Your task to perform on an android device: turn on location history Image 0: 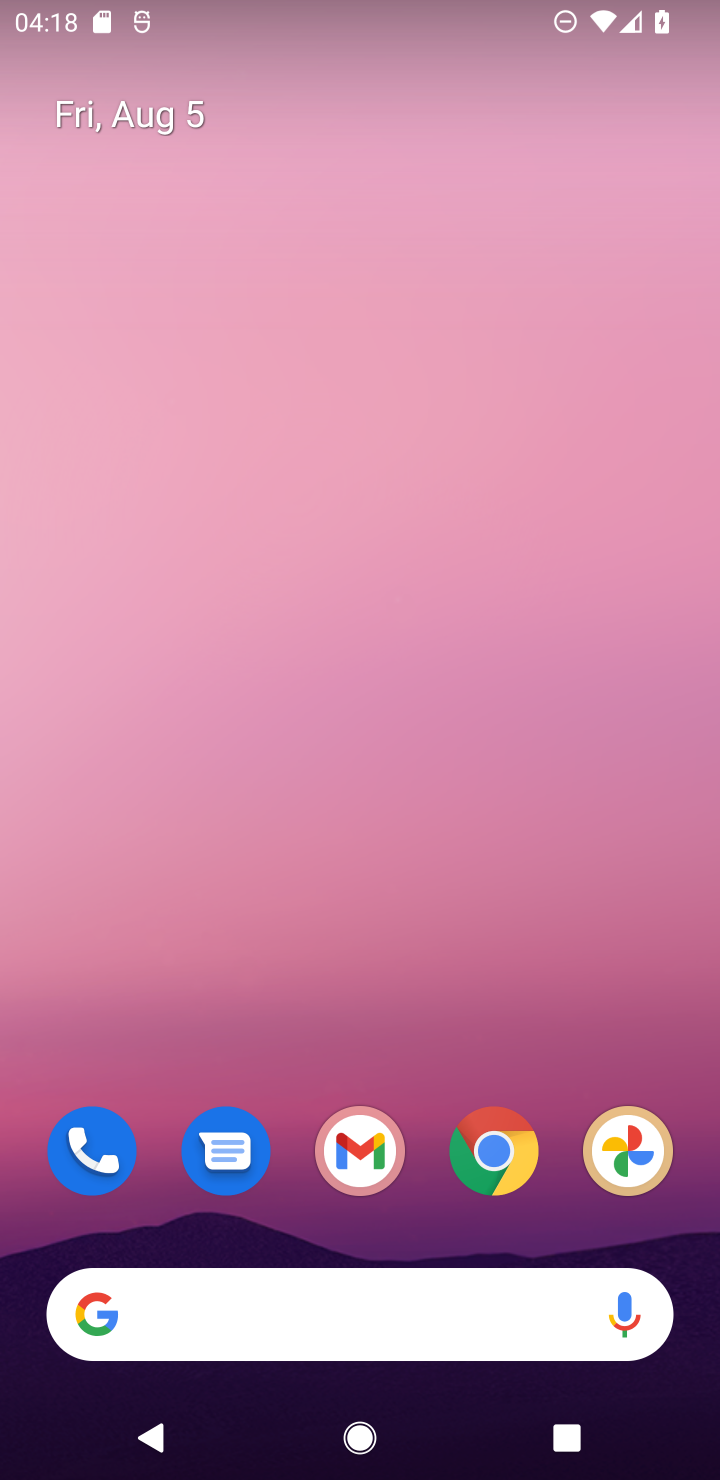
Step 0: drag from (529, 1004) to (529, 472)
Your task to perform on an android device: turn on location history Image 1: 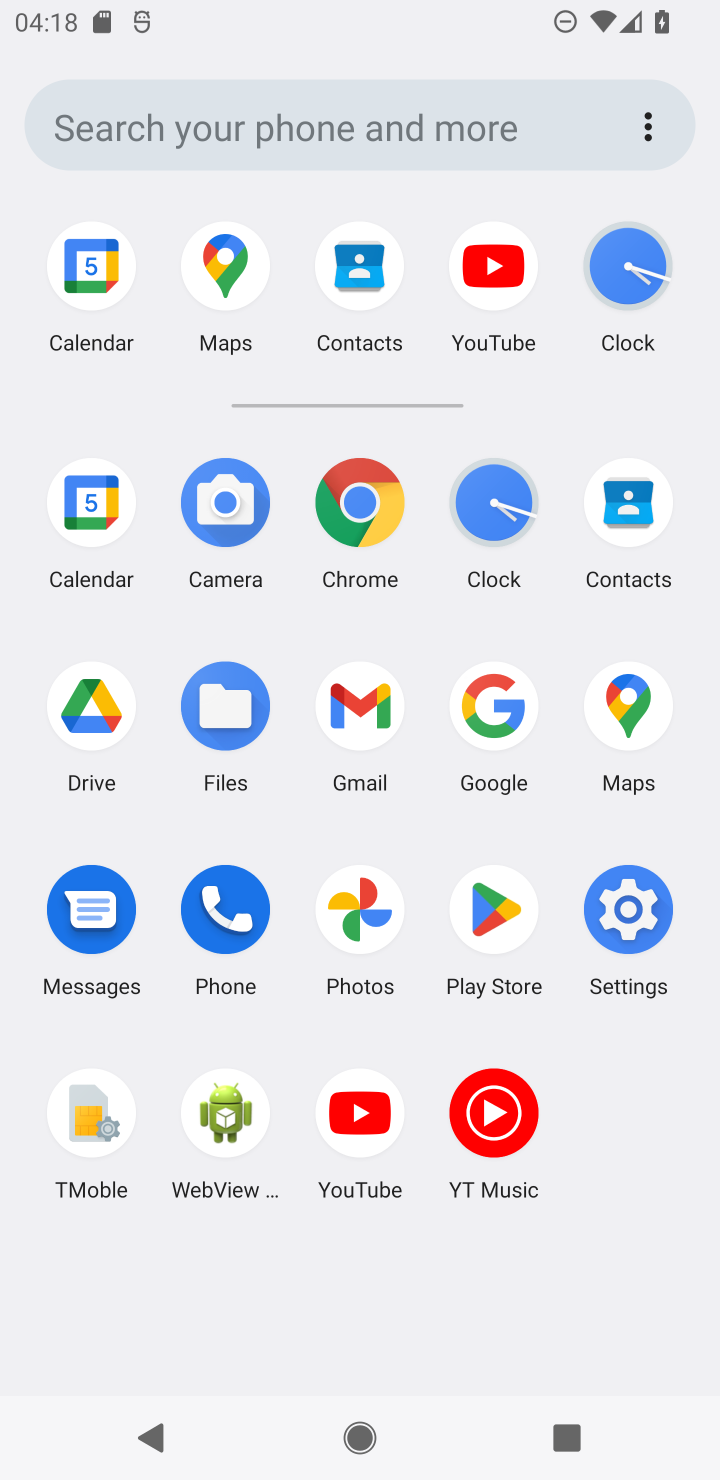
Step 1: click (624, 910)
Your task to perform on an android device: turn on location history Image 2: 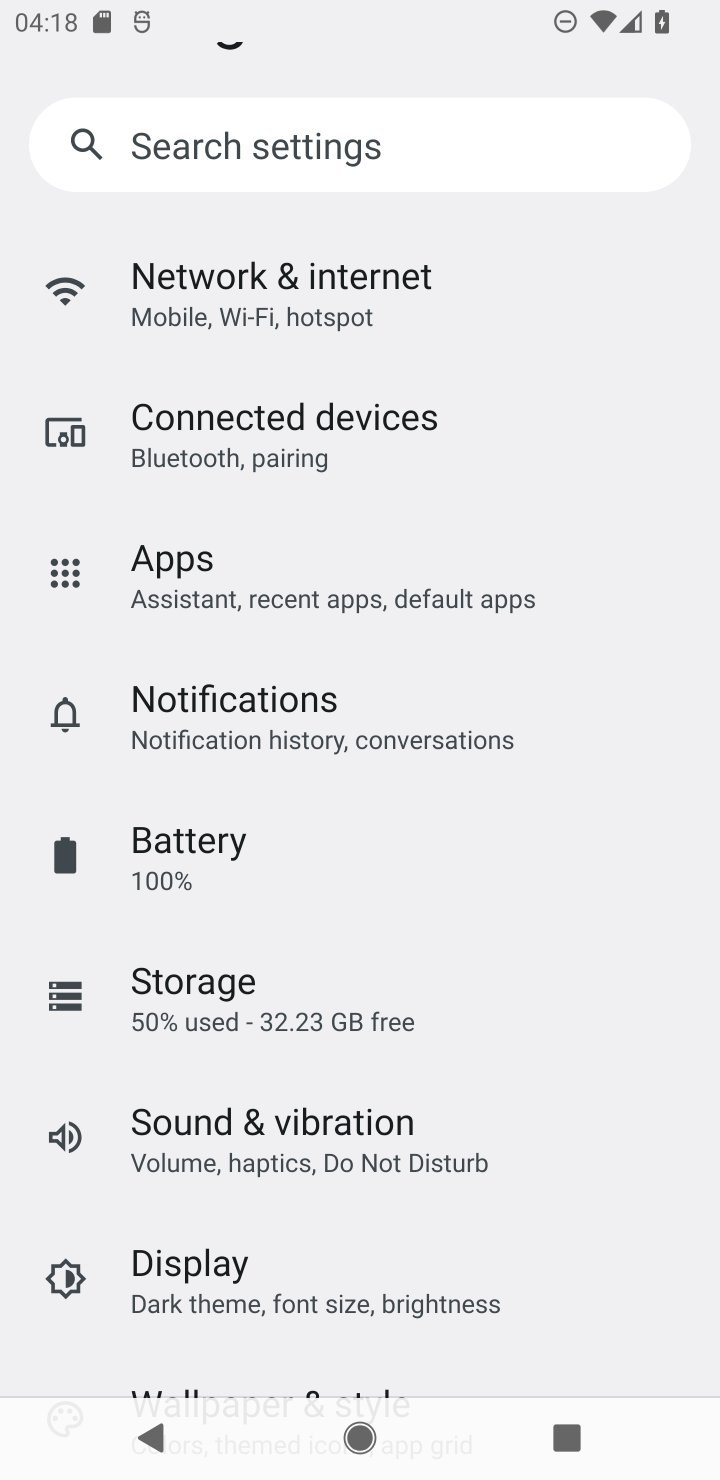
Step 2: drag from (477, 1185) to (444, 338)
Your task to perform on an android device: turn on location history Image 3: 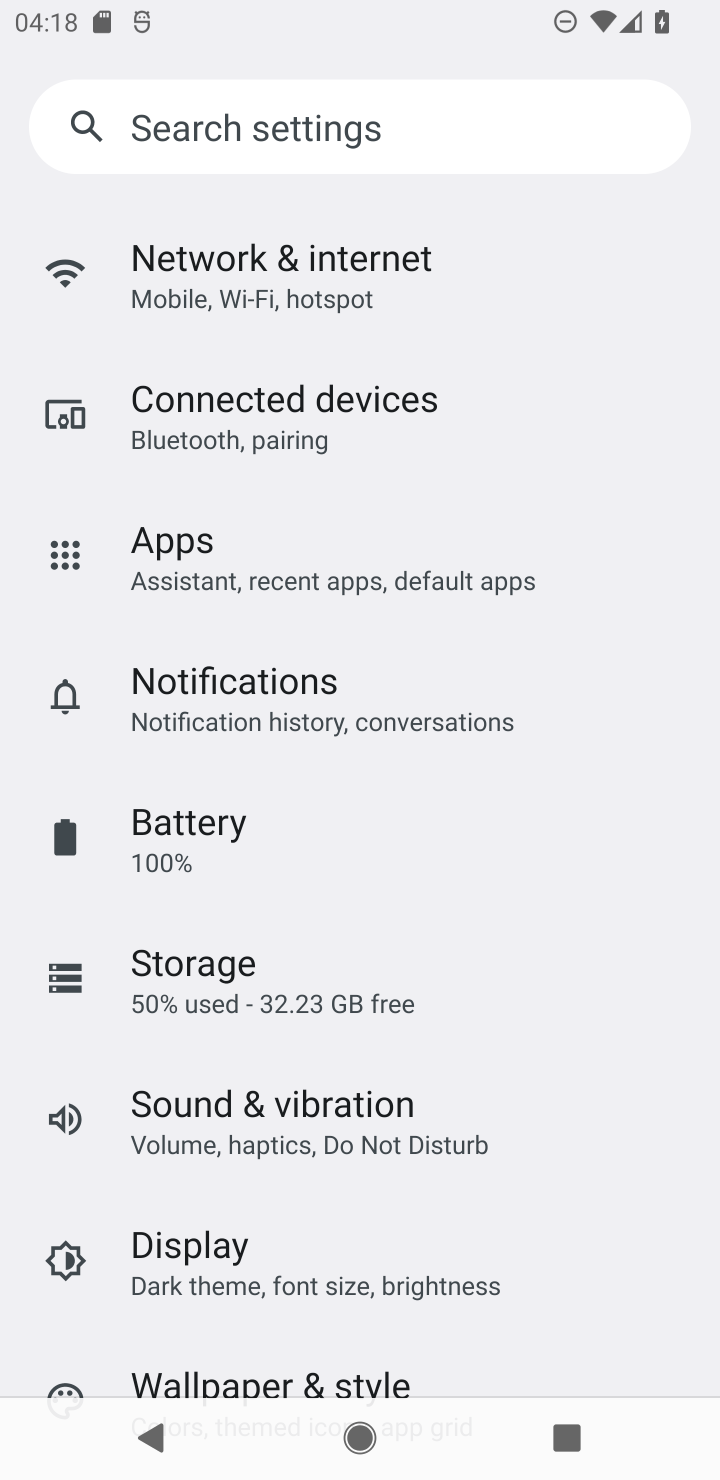
Step 3: drag from (374, 1064) to (310, 619)
Your task to perform on an android device: turn on location history Image 4: 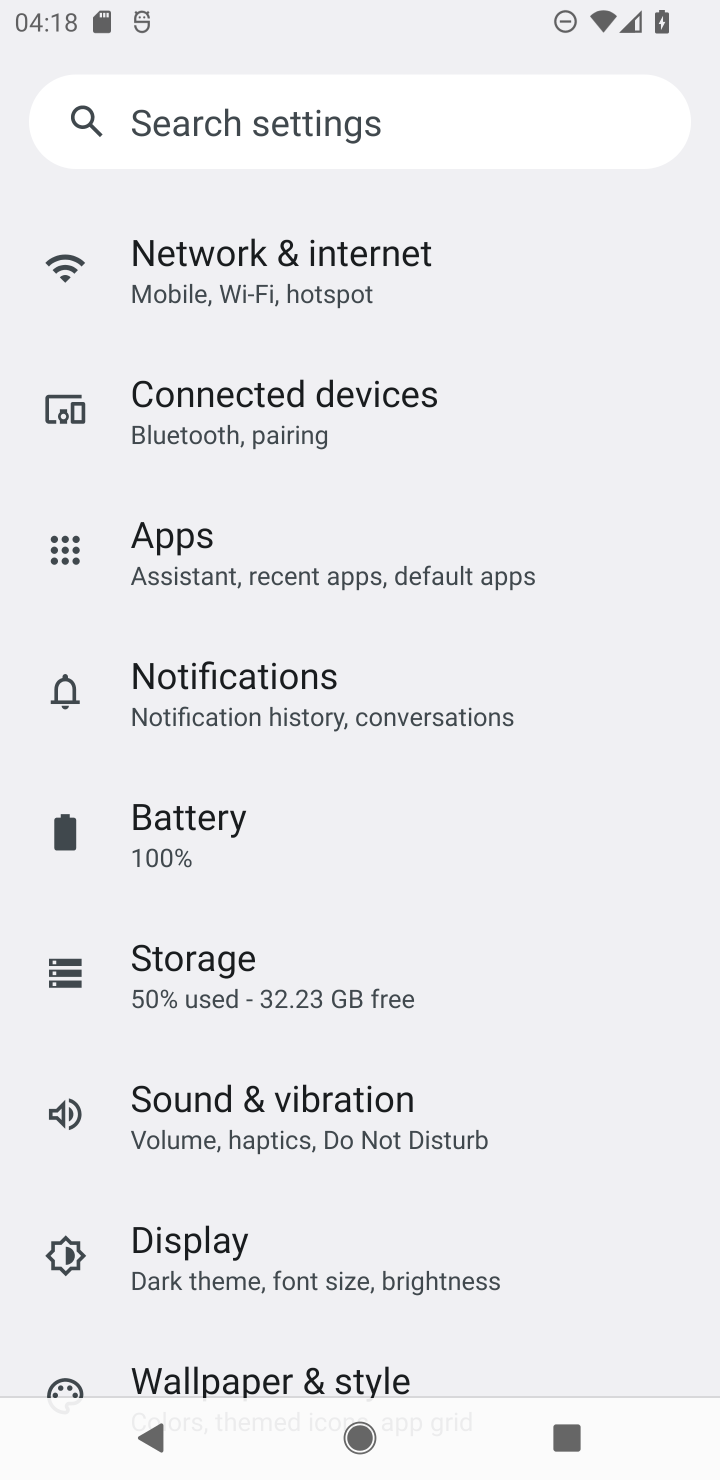
Step 4: drag from (222, 1138) to (211, 721)
Your task to perform on an android device: turn on location history Image 5: 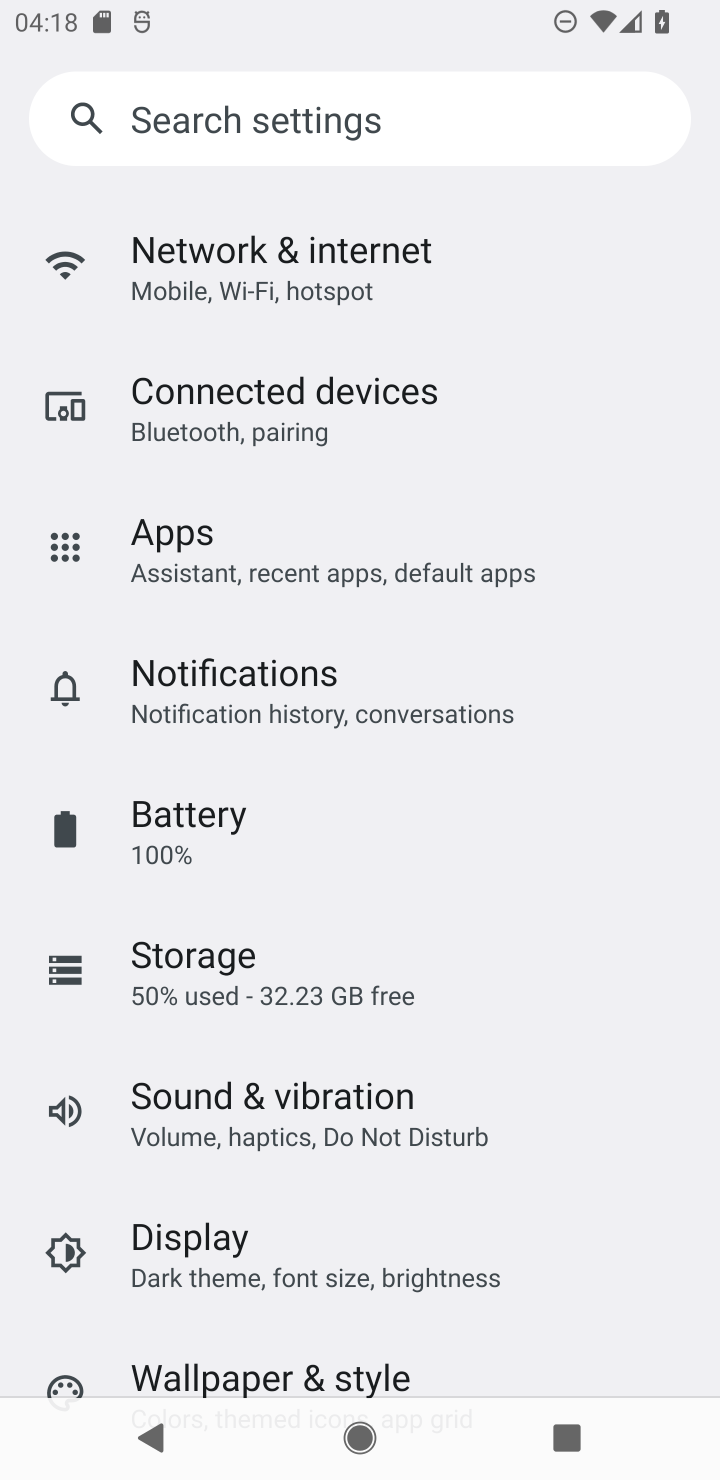
Step 5: drag from (298, 1348) to (165, 491)
Your task to perform on an android device: turn on location history Image 6: 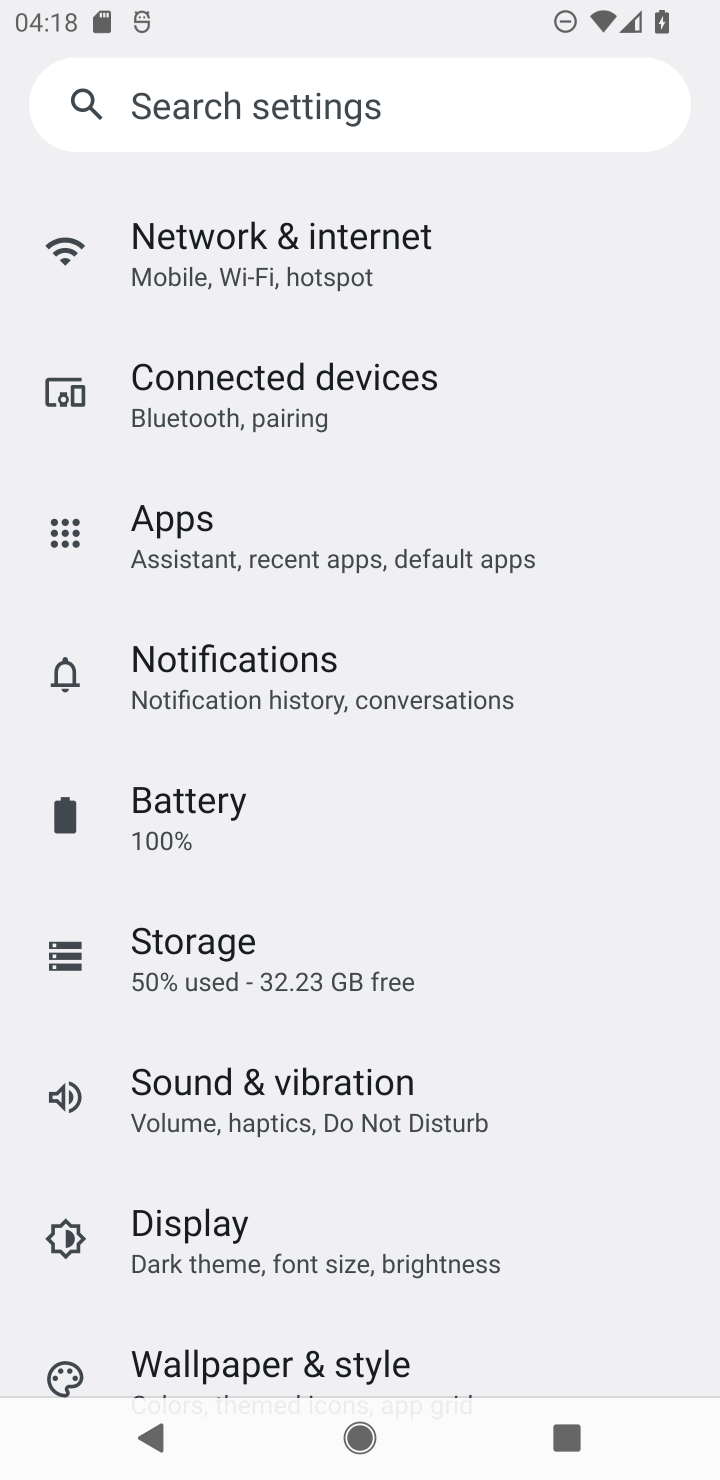
Step 6: drag from (173, 1134) to (135, 545)
Your task to perform on an android device: turn on location history Image 7: 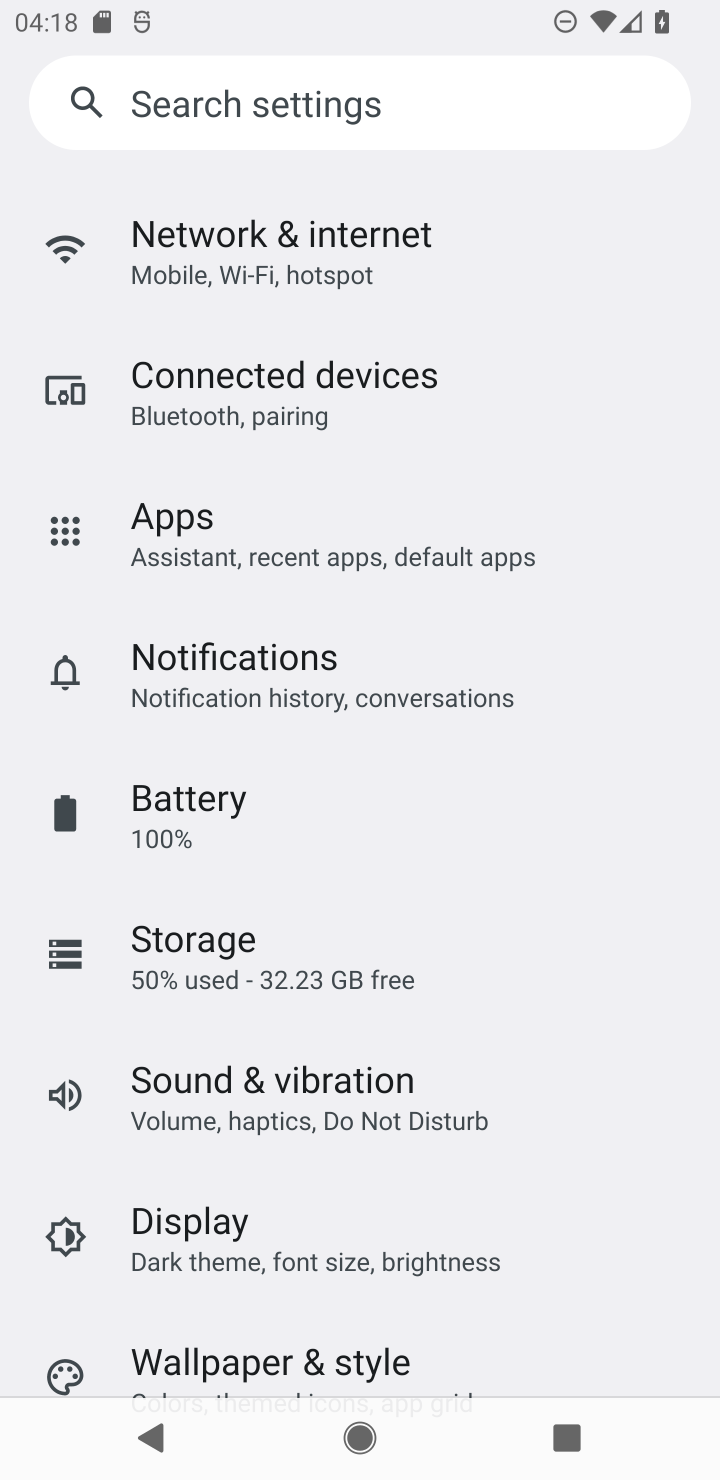
Step 7: drag from (116, 1129) to (92, 485)
Your task to perform on an android device: turn on location history Image 8: 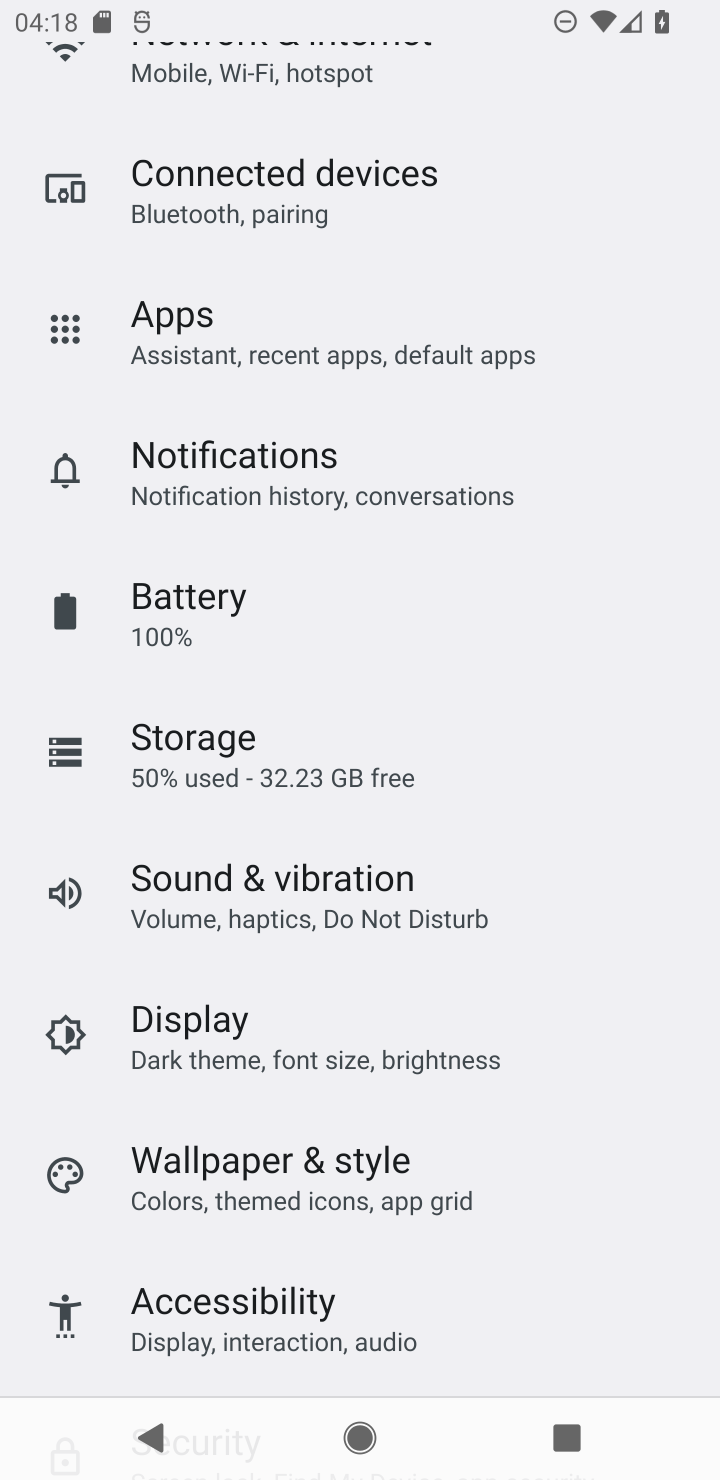
Step 8: drag from (193, 1222) to (161, 682)
Your task to perform on an android device: turn on location history Image 9: 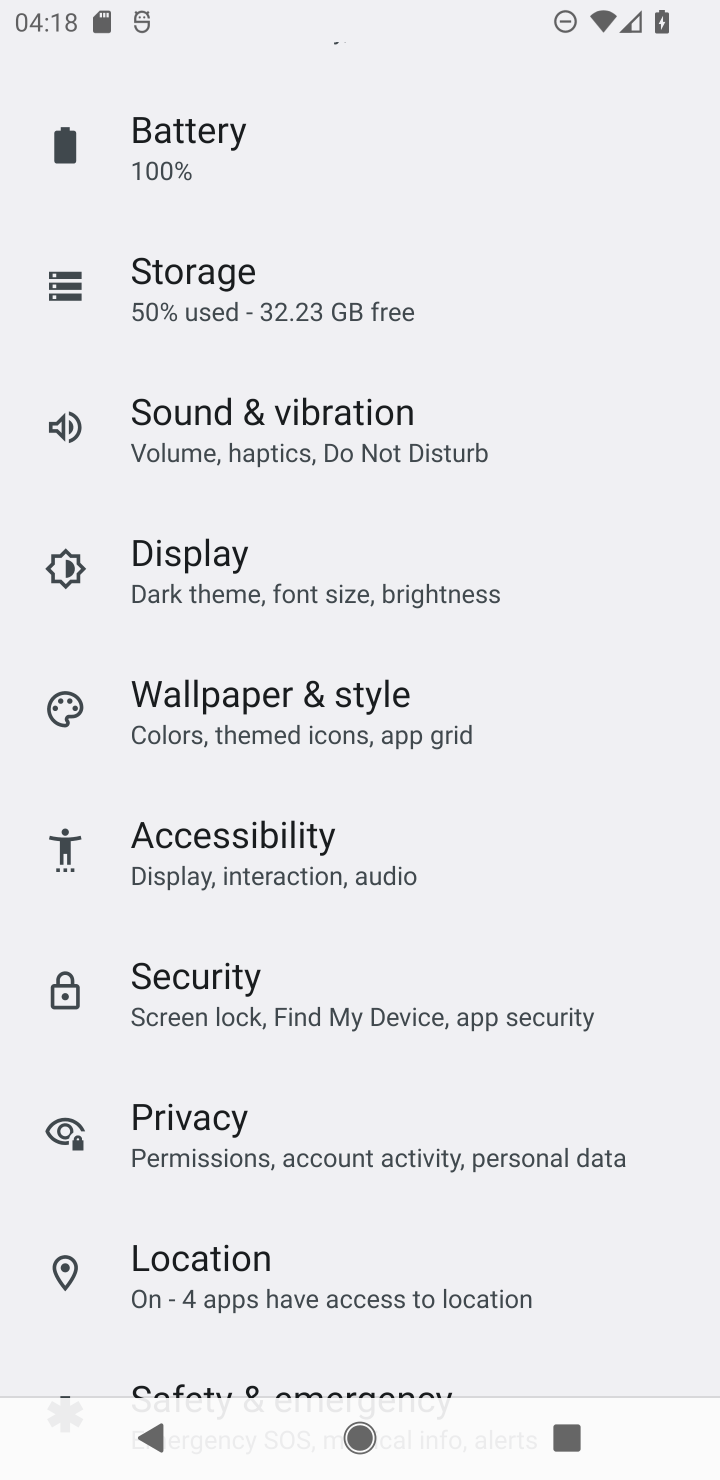
Step 9: click (208, 1306)
Your task to perform on an android device: turn on location history Image 10: 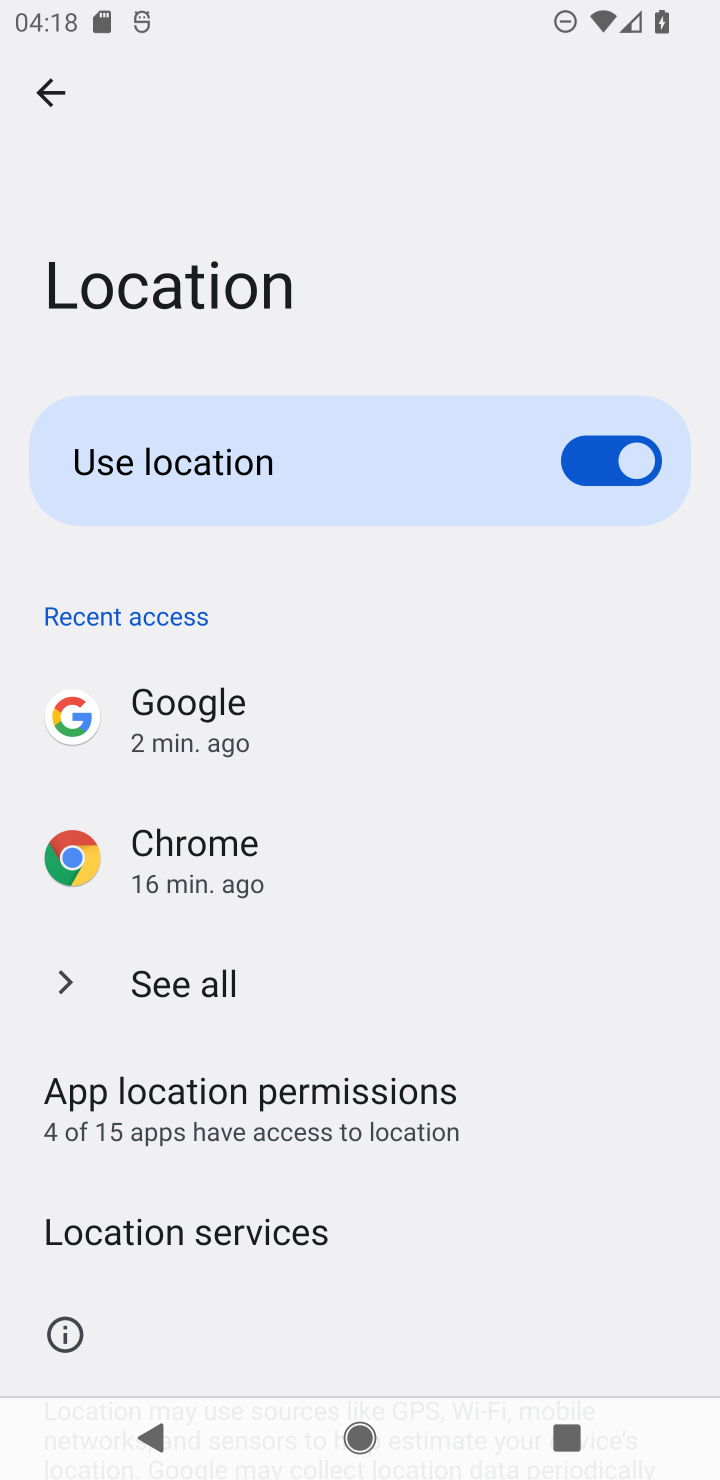
Step 10: task complete